Your task to perform on an android device: Go to accessibility settings Image 0: 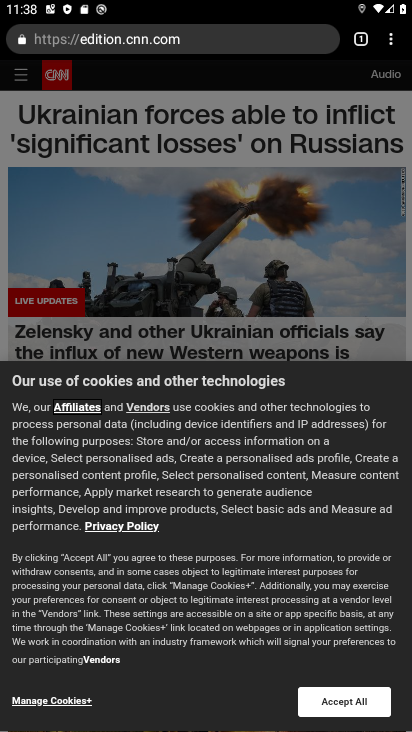
Step 0: drag from (227, 521) to (226, 355)
Your task to perform on an android device: Go to accessibility settings Image 1: 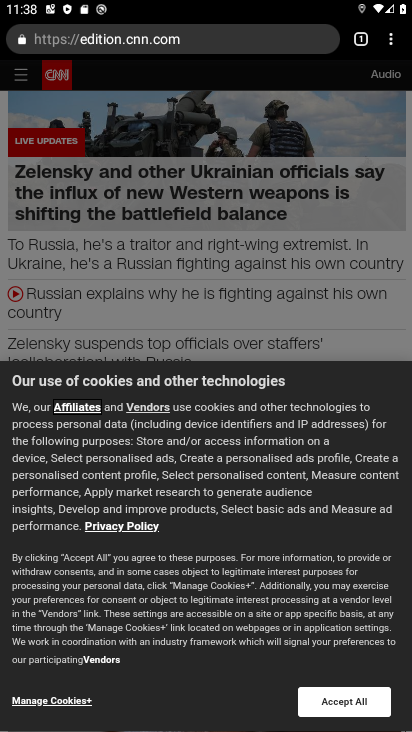
Step 1: press home button
Your task to perform on an android device: Go to accessibility settings Image 2: 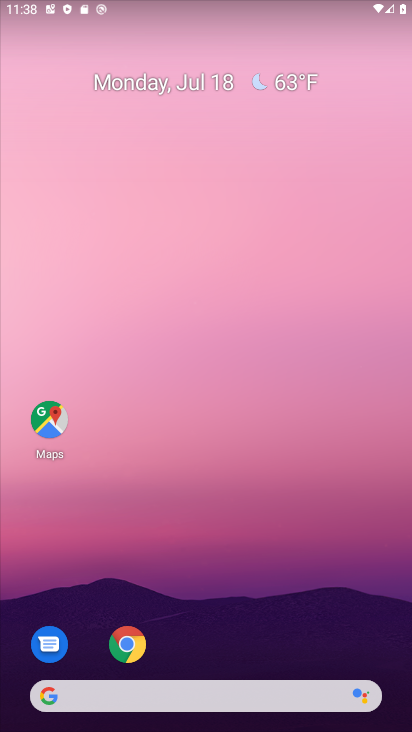
Step 2: drag from (207, 724) to (230, 376)
Your task to perform on an android device: Go to accessibility settings Image 3: 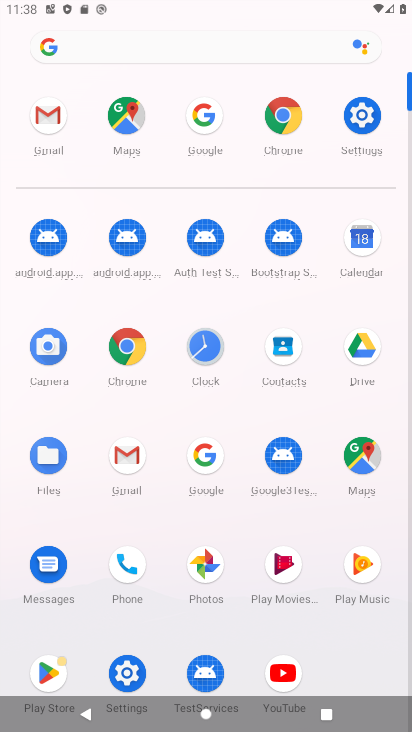
Step 3: click (366, 111)
Your task to perform on an android device: Go to accessibility settings Image 4: 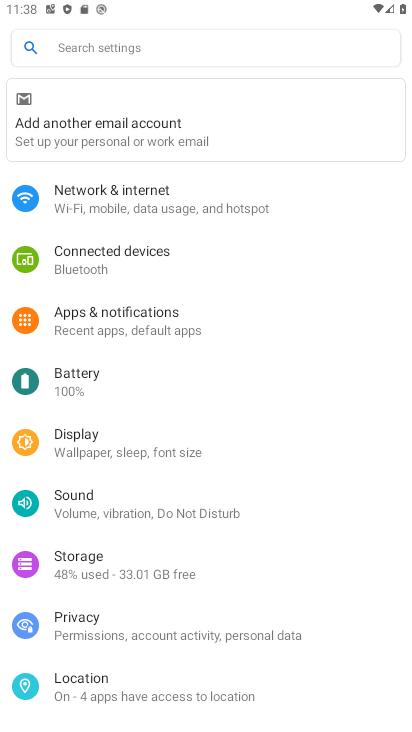
Step 4: drag from (188, 693) to (188, 295)
Your task to perform on an android device: Go to accessibility settings Image 5: 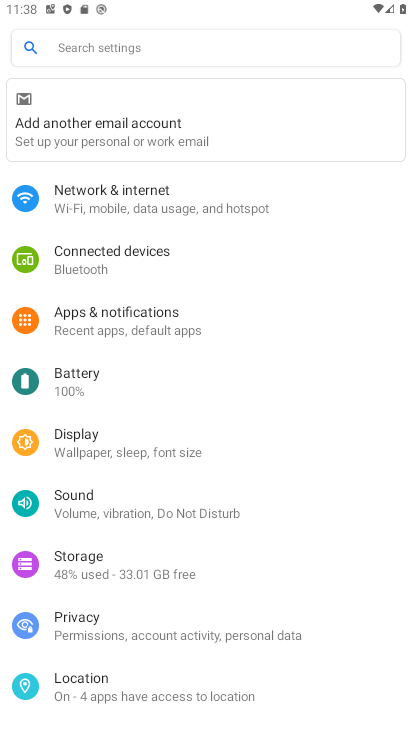
Step 5: drag from (155, 660) to (135, 317)
Your task to perform on an android device: Go to accessibility settings Image 6: 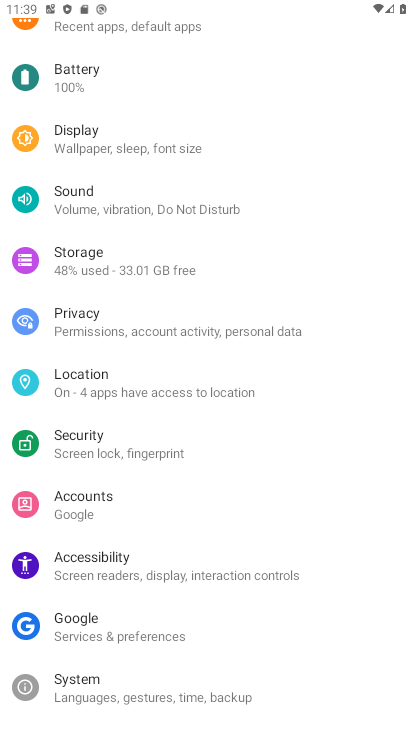
Step 6: click (101, 561)
Your task to perform on an android device: Go to accessibility settings Image 7: 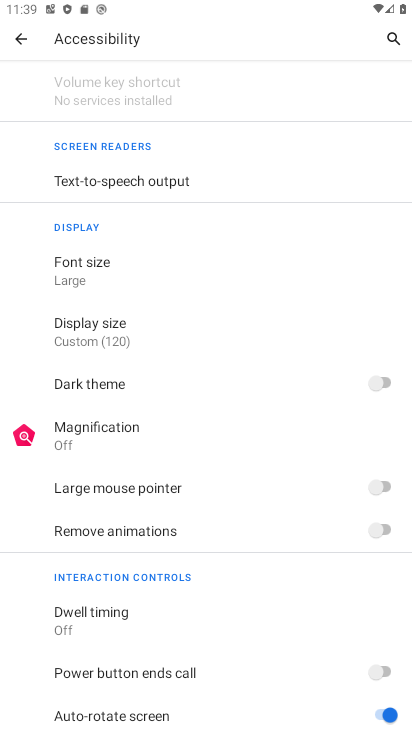
Step 7: task complete